Your task to perform on an android device: Go to network settings Image 0: 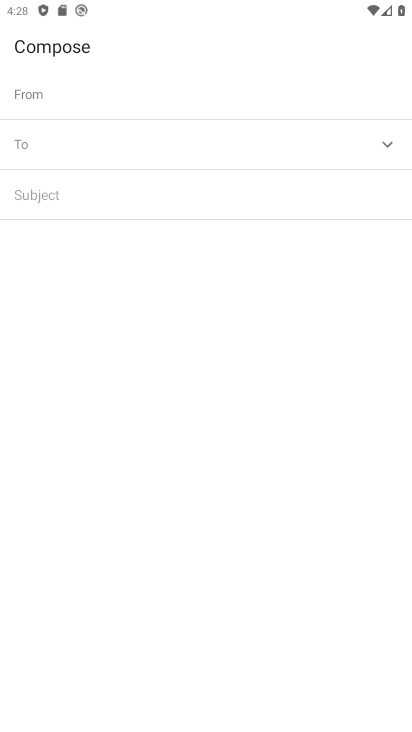
Step 0: drag from (201, 665) to (295, 141)
Your task to perform on an android device: Go to network settings Image 1: 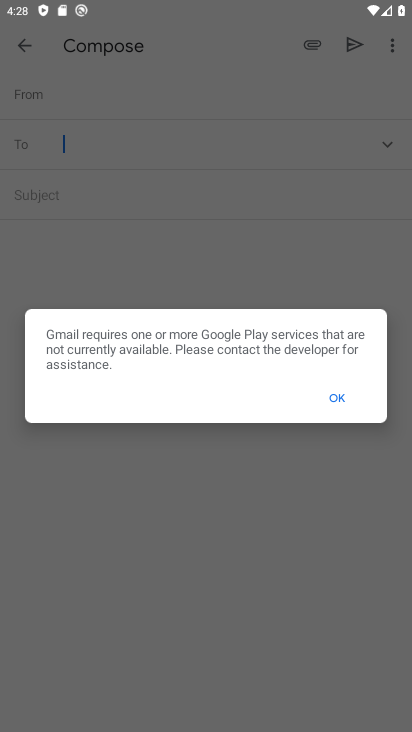
Step 1: press home button
Your task to perform on an android device: Go to network settings Image 2: 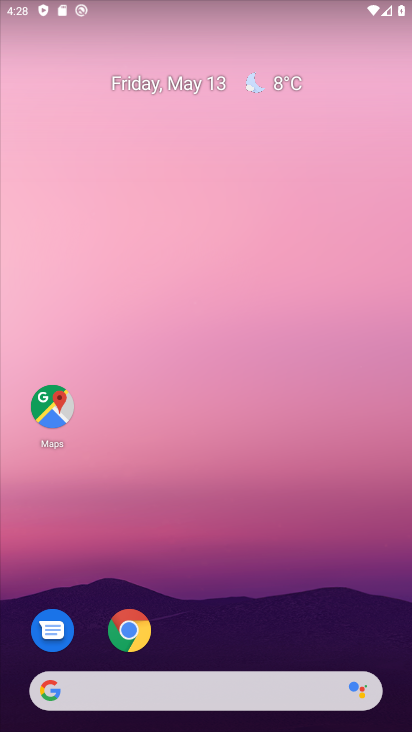
Step 2: drag from (198, 652) to (288, 157)
Your task to perform on an android device: Go to network settings Image 3: 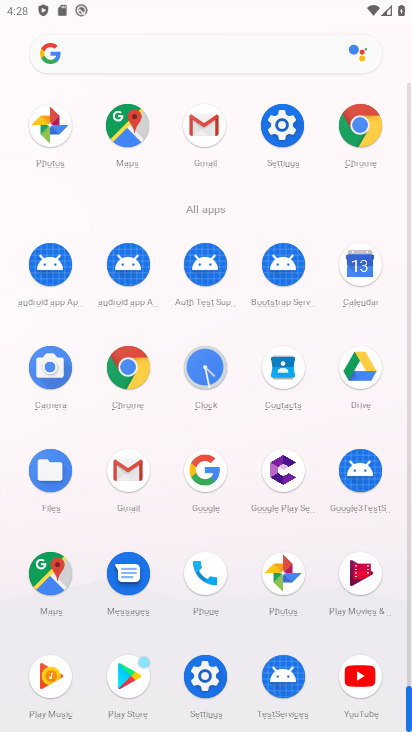
Step 3: drag from (245, 616) to (292, 357)
Your task to perform on an android device: Go to network settings Image 4: 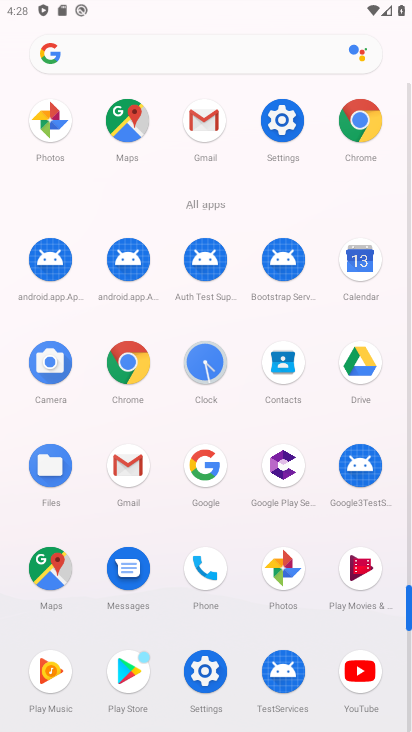
Step 4: click (204, 668)
Your task to perform on an android device: Go to network settings Image 5: 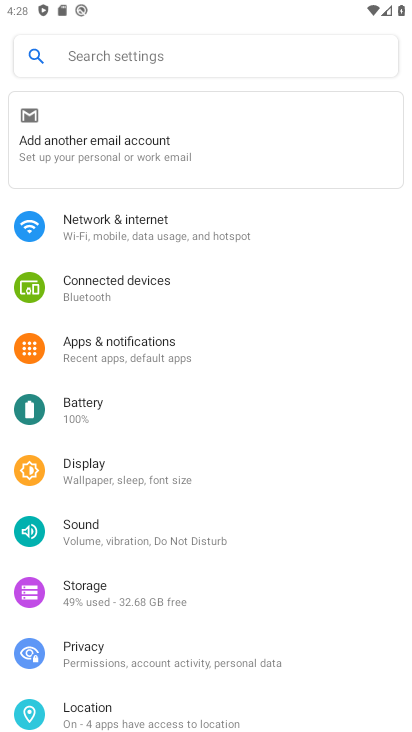
Step 5: click (168, 238)
Your task to perform on an android device: Go to network settings Image 6: 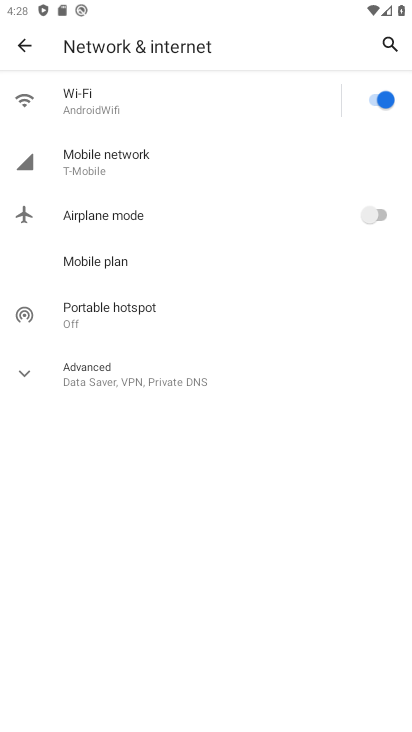
Step 6: click (155, 168)
Your task to perform on an android device: Go to network settings Image 7: 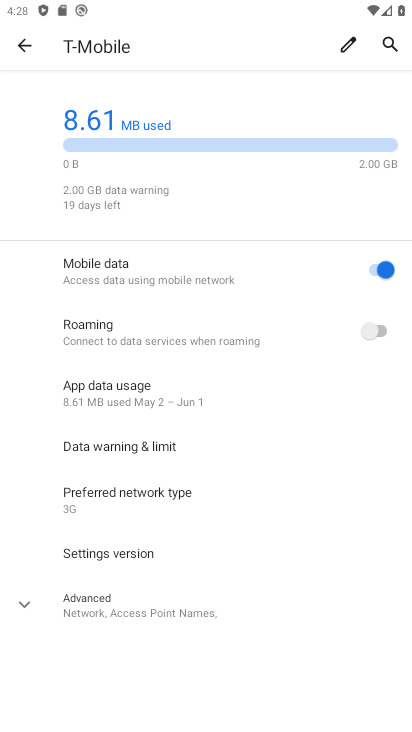
Step 7: task complete